Your task to perform on an android device: Open the stopwatch Image 0: 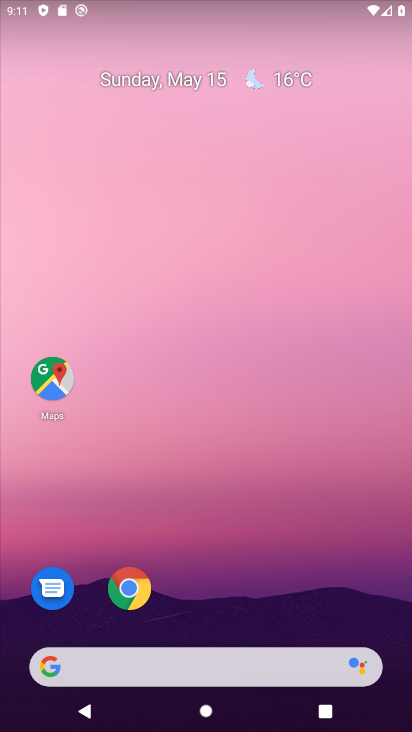
Step 0: drag from (238, 598) to (319, 173)
Your task to perform on an android device: Open the stopwatch Image 1: 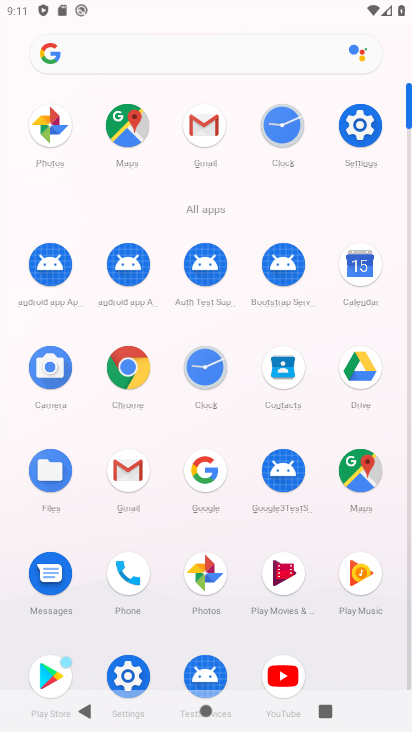
Step 1: click (200, 379)
Your task to perform on an android device: Open the stopwatch Image 2: 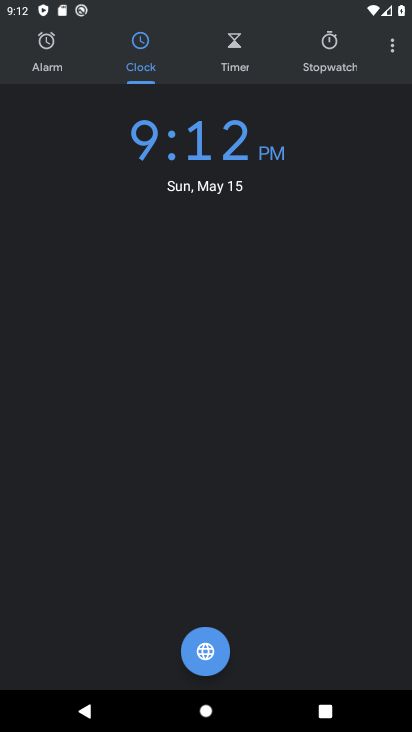
Step 2: click (344, 56)
Your task to perform on an android device: Open the stopwatch Image 3: 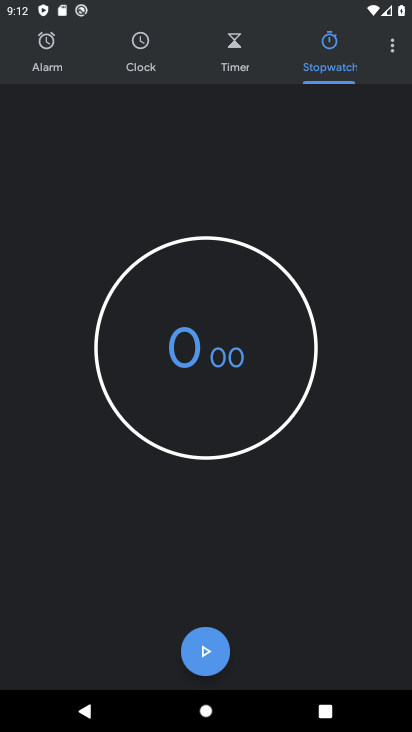
Step 3: task complete